Your task to perform on an android device: refresh tabs in the chrome app Image 0: 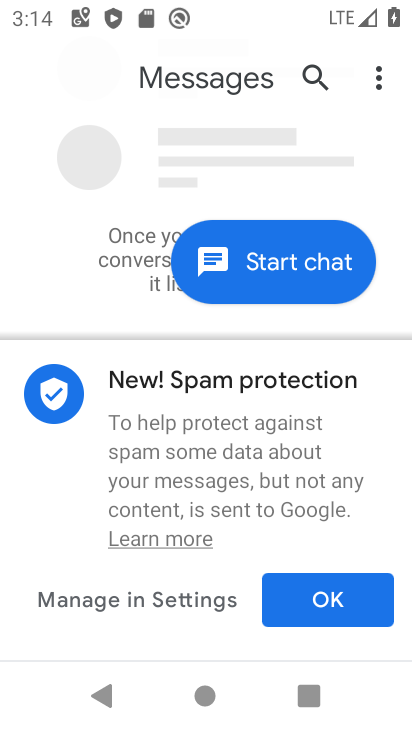
Step 0: press back button
Your task to perform on an android device: refresh tabs in the chrome app Image 1: 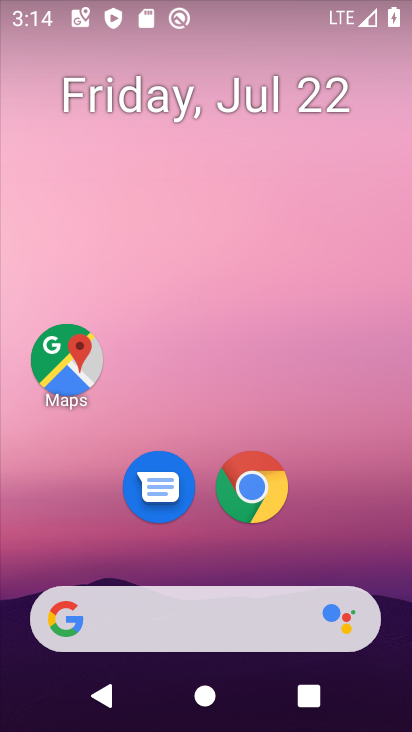
Step 1: click (271, 508)
Your task to perform on an android device: refresh tabs in the chrome app Image 2: 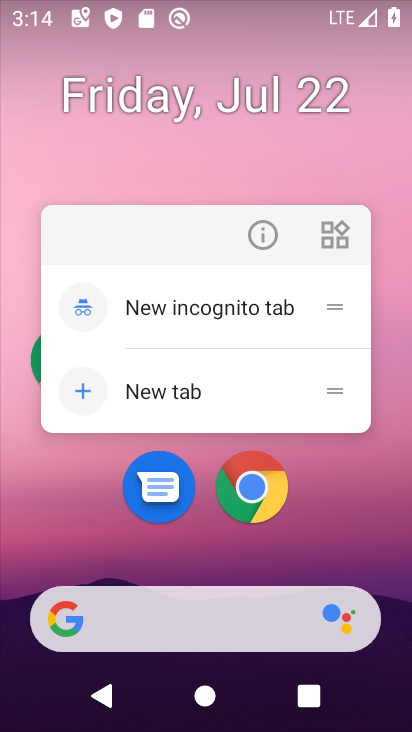
Step 2: click (258, 493)
Your task to perform on an android device: refresh tabs in the chrome app Image 3: 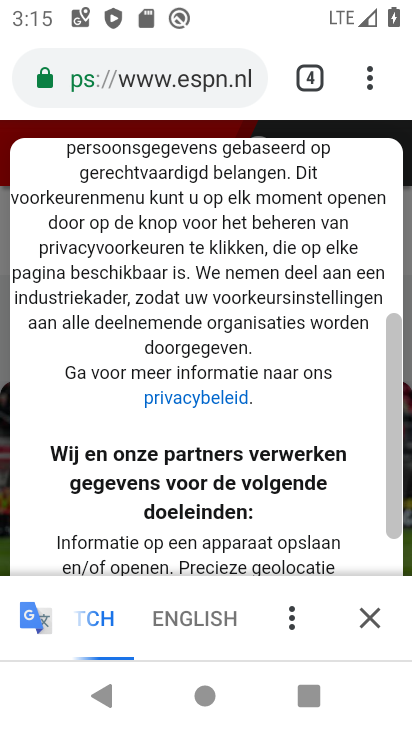
Step 3: click (357, 87)
Your task to perform on an android device: refresh tabs in the chrome app Image 4: 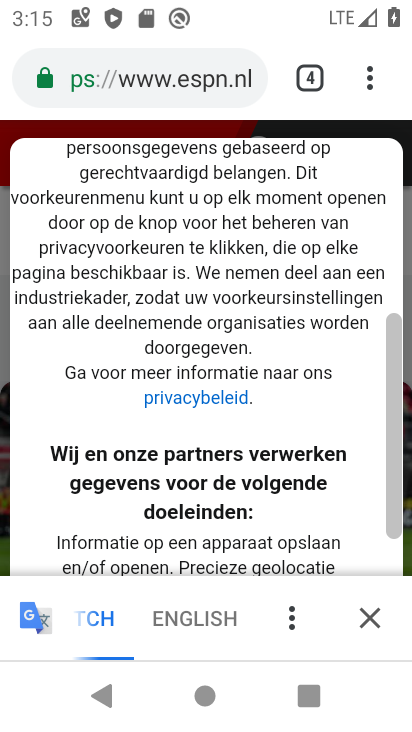
Step 4: task complete